Your task to perform on an android device: Show me popular videos on Youtube Image 0: 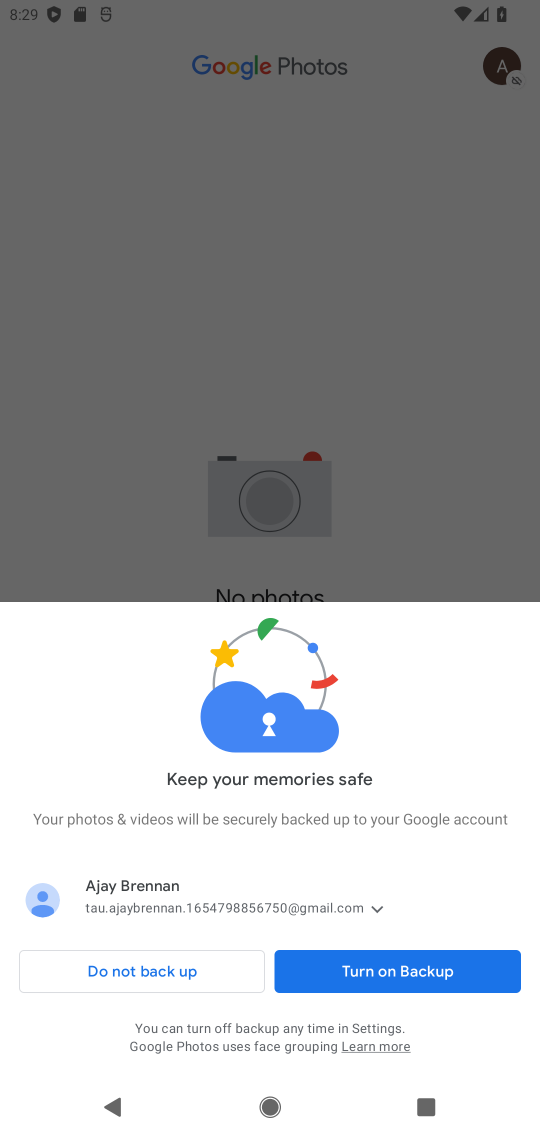
Step 0: press home button
Your task to perform on an android device: Show me popular videos on Youtube Image 1: 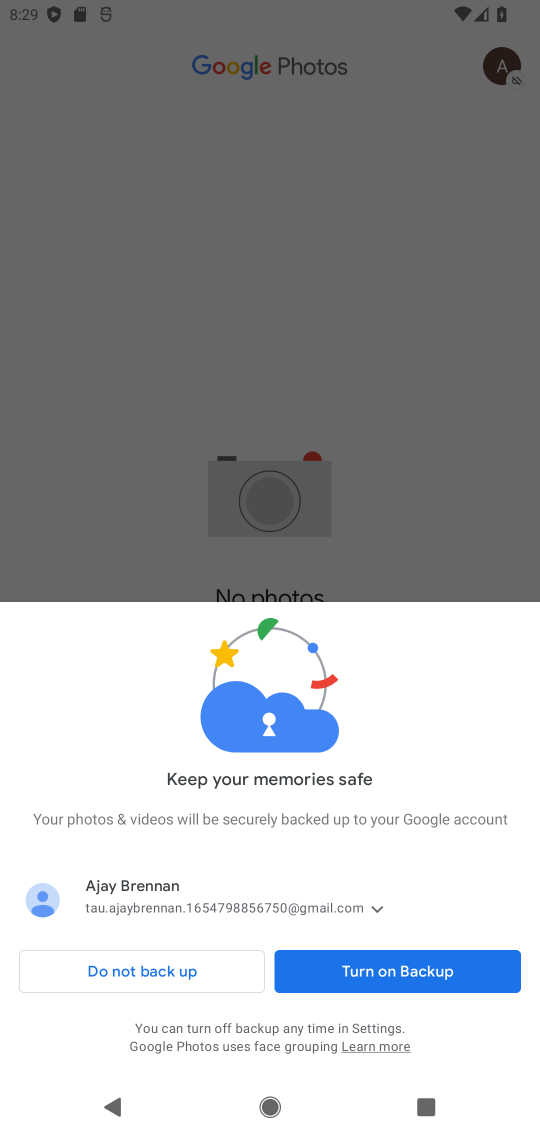
Step 1: press home button
Your task to perform on an android device: Show me popular videos on Youtube Image 2: 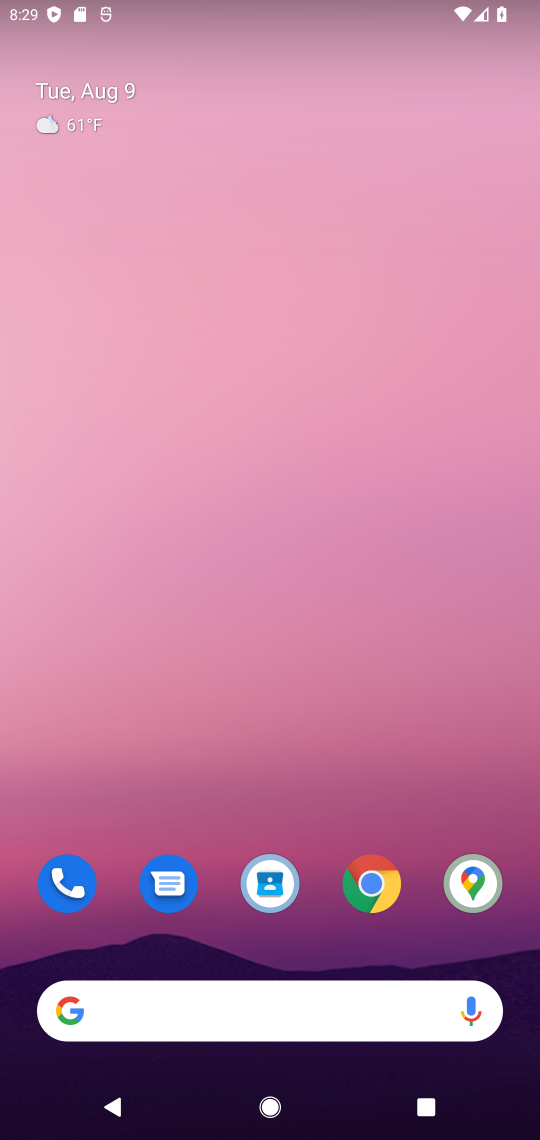
Step 2: drag from (298, 813) to (327, 30)
Your task to perform on an android device: Show me popular videos on Youtube Image 3: 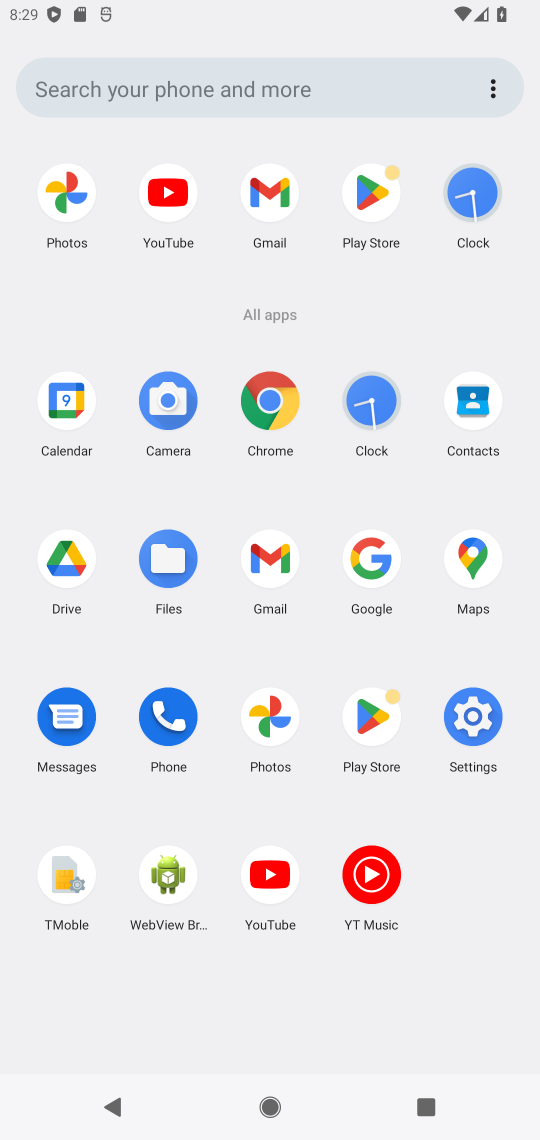
Step 3: click (262, 872)
Your task to perform on an android device: Show me popular videos on Youtube Image 4: 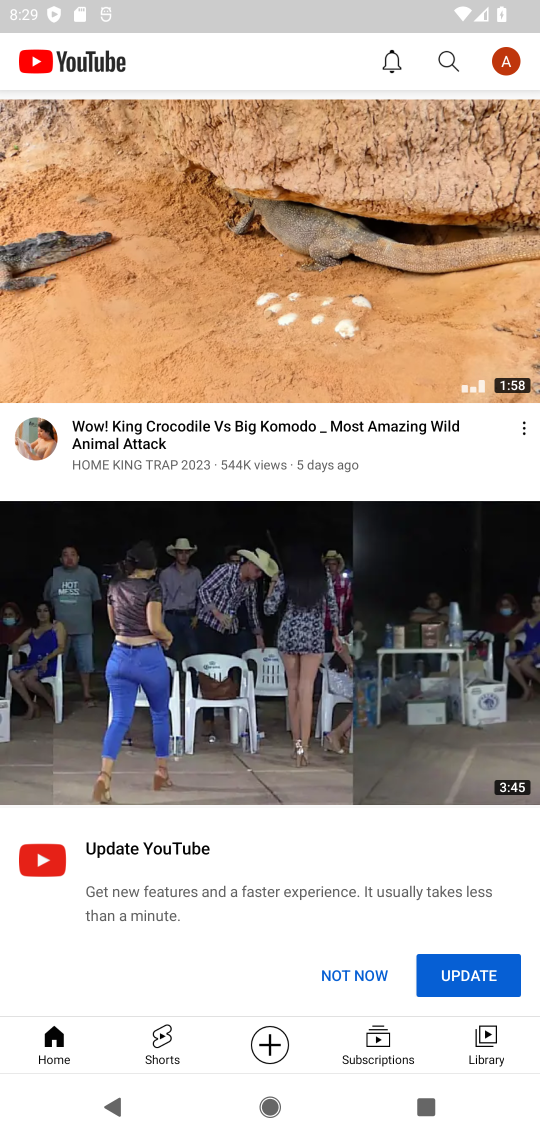
Step 4: drag from (205, 151) to (204, 797)
Your task to perform on an android device: Show me popular videos on Youtube Image 5: 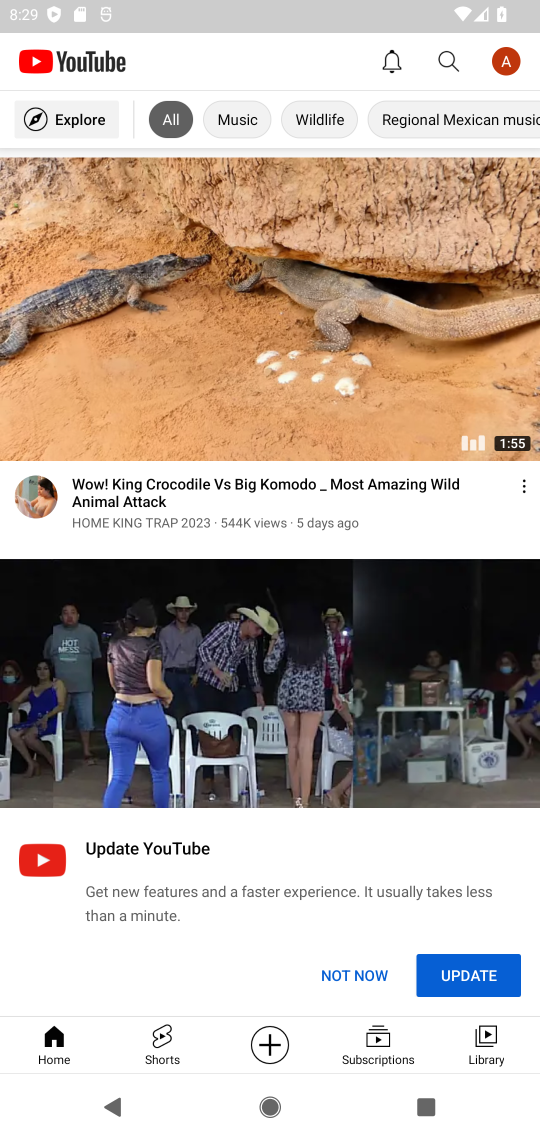
Step 5: click (92, 121)
Your task to perform on an android device: Show me popular videos on Youtube Image 6: 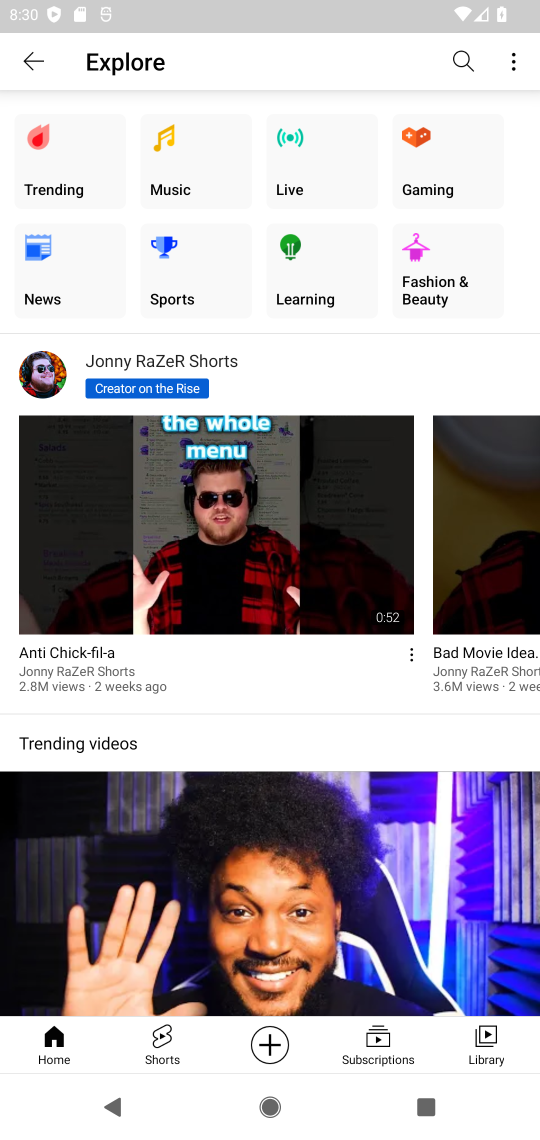
Step 6: task complete